Your task to perform on an android device: Go to Yahoo.com Image 0: 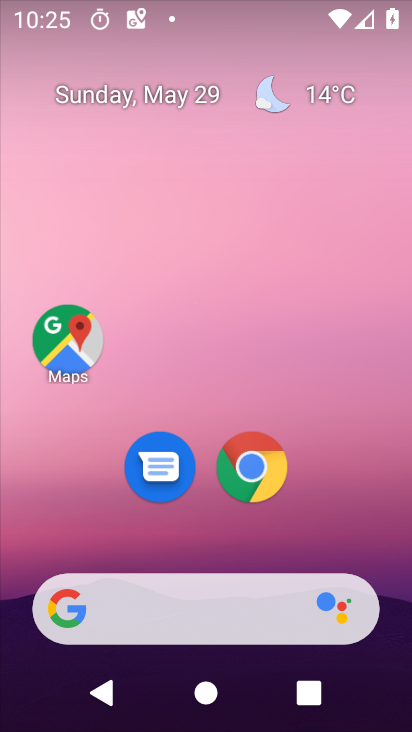
Step 0: click (238, 435)
Your task to perform on an android device: Go to Yahoo.com Image 1: 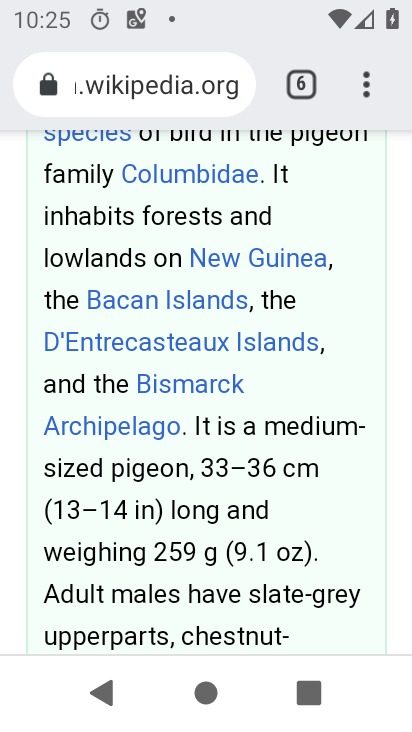
Step 1: click (289, 73)
Your task to perform on an android device: Go to Yahoo.com Image 2: 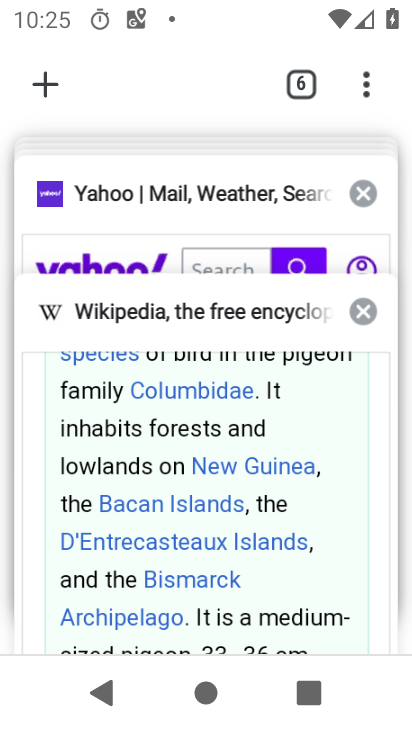
Step 2: click (182, 209)
Your task to perform on an android device: Go to Yahoo.com Image 3: 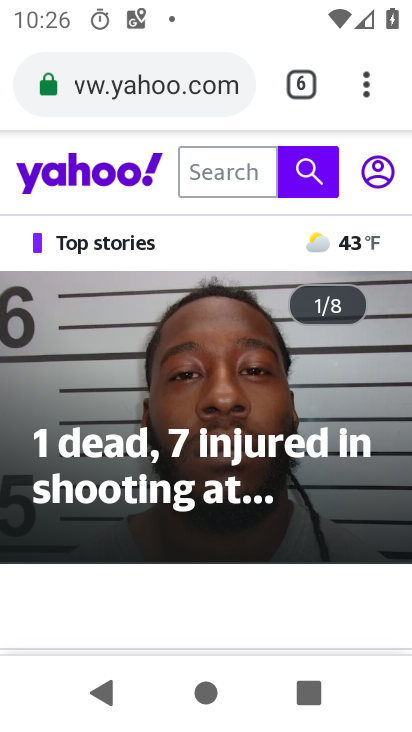
Step 3: task complete